Your task to perform on an android device: Add "razer naga" to the cart on amazon, then select checkout. Image 0: 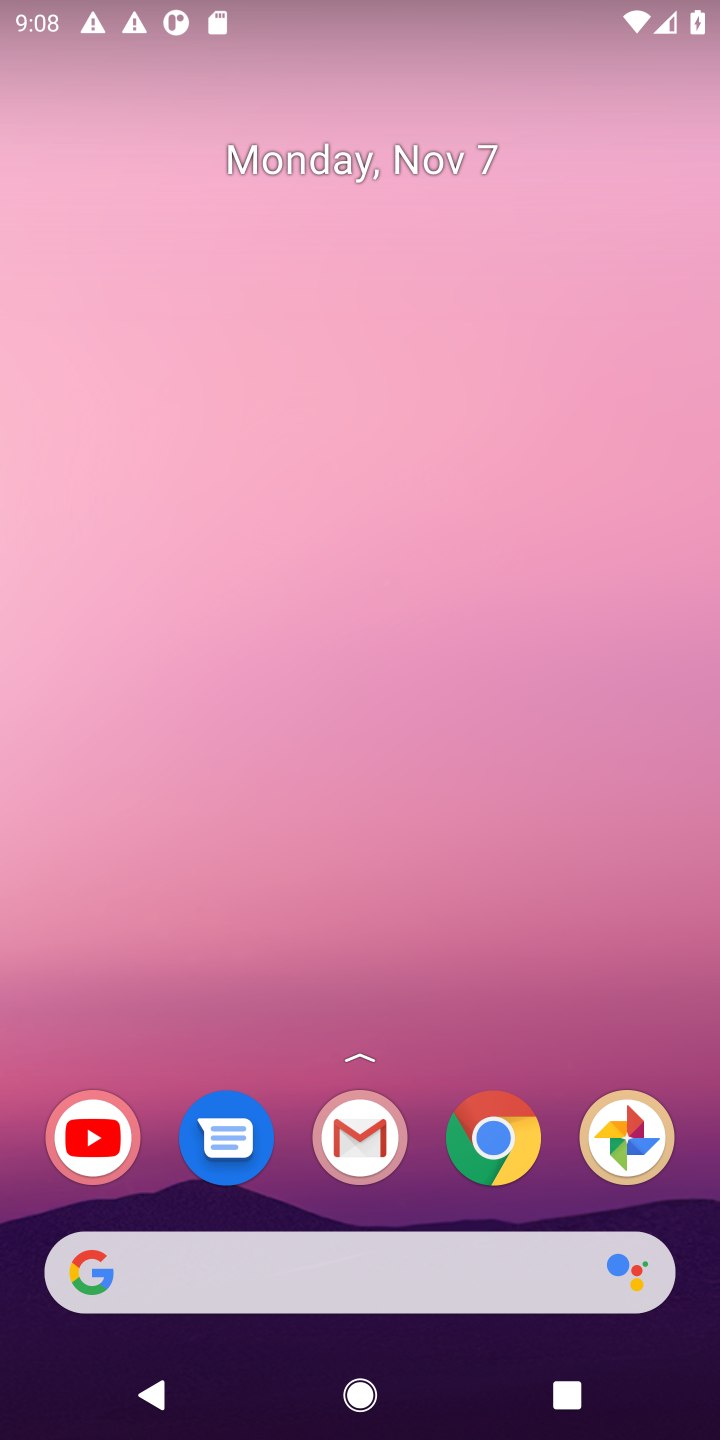
Step 0: click (475, 1139)
Your task to perform on an android device: Add "razer naga" to the cart on amazon, then select checkout. Image 1: 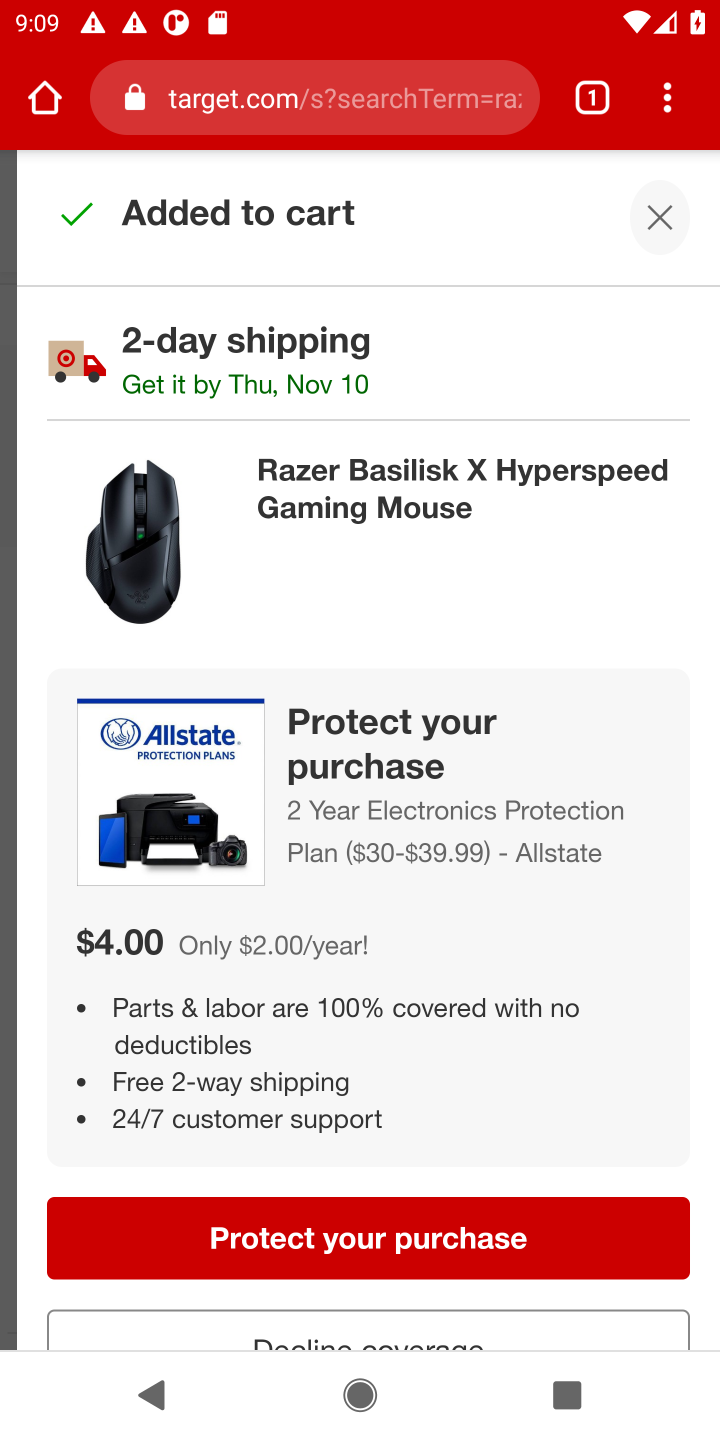
Step 1: click (603, 112)
Your task to perform on an android device: Add "razer naga" to the cart on amazon, then select checkout. Image 2: 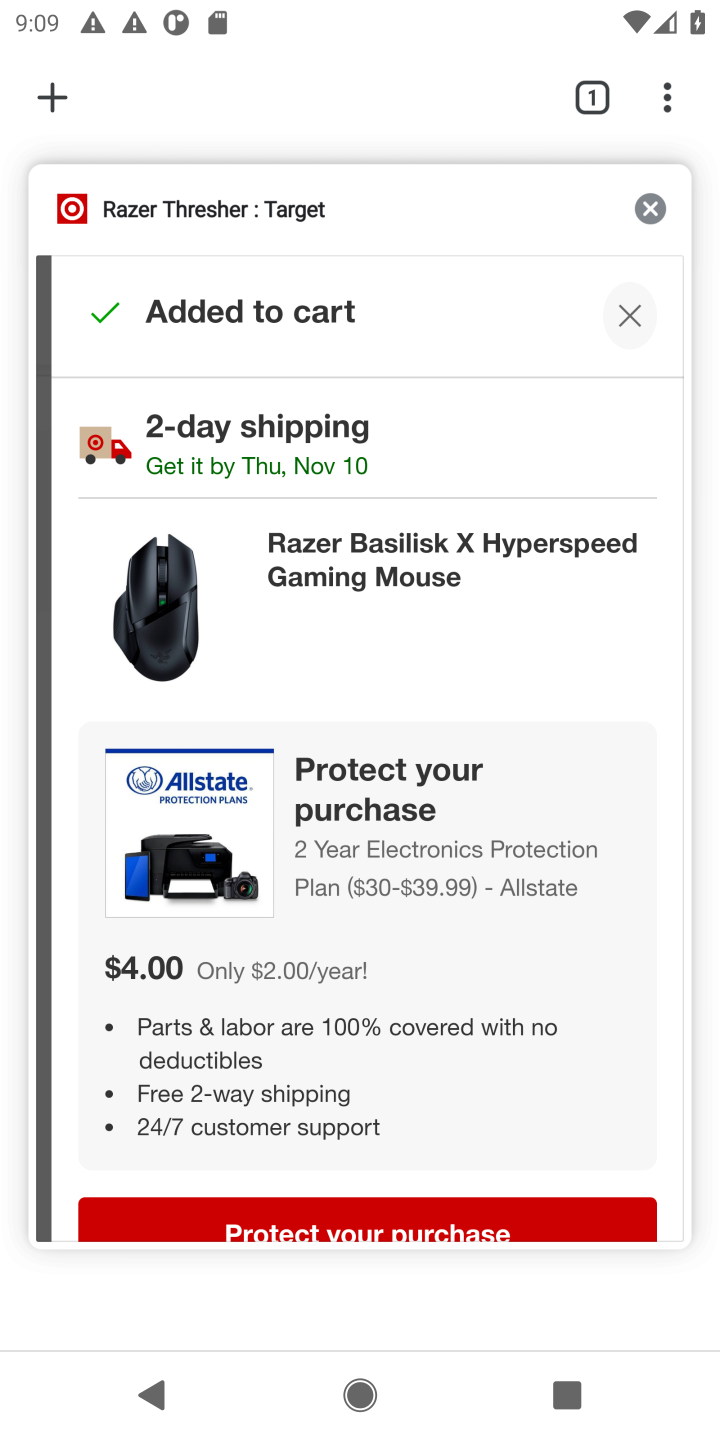
Step 2: click (45, 93)
Your task to perform on an android device: Add "razer naga" to the cart on amazon, then select checkout. Image 3: 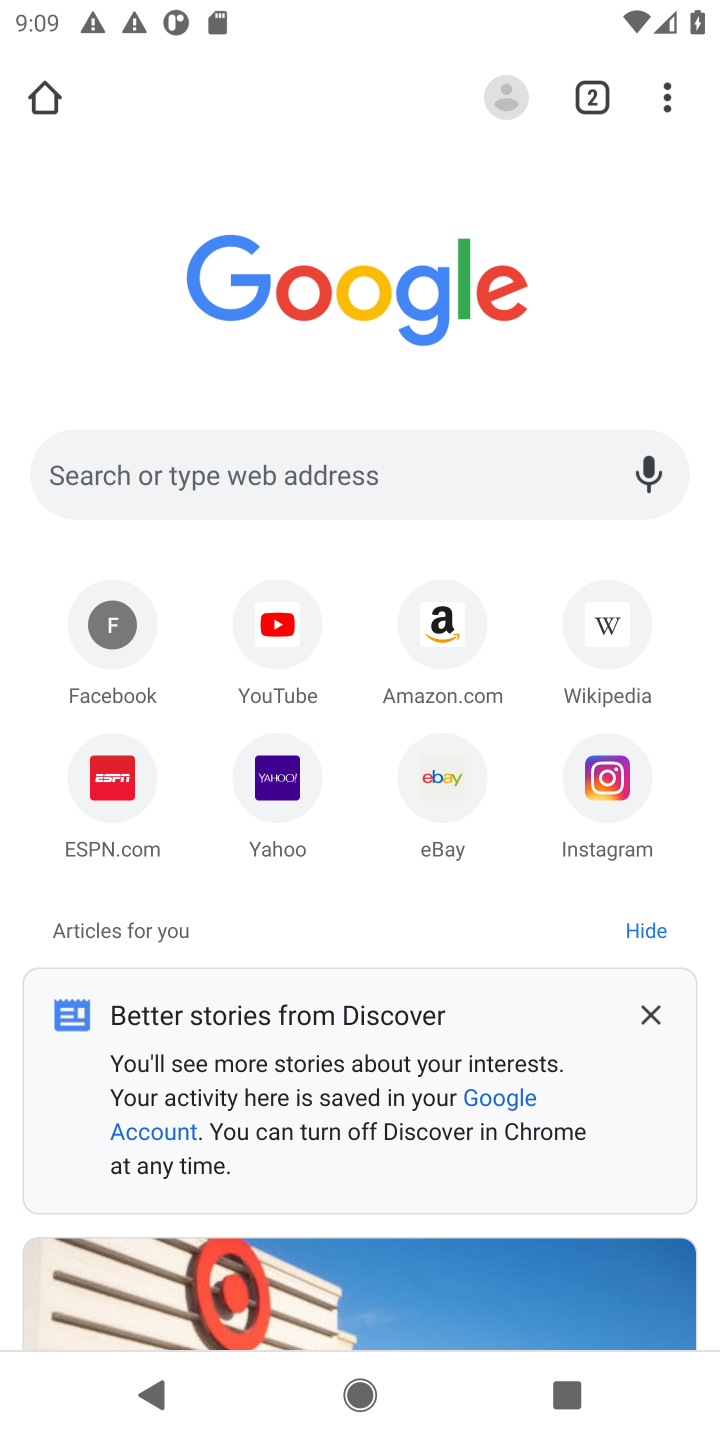
Step 3: click (450, 620)
Your task to perform on an android device: Add "razer naga" to the cart on amazon, then select checkout. Image 4: 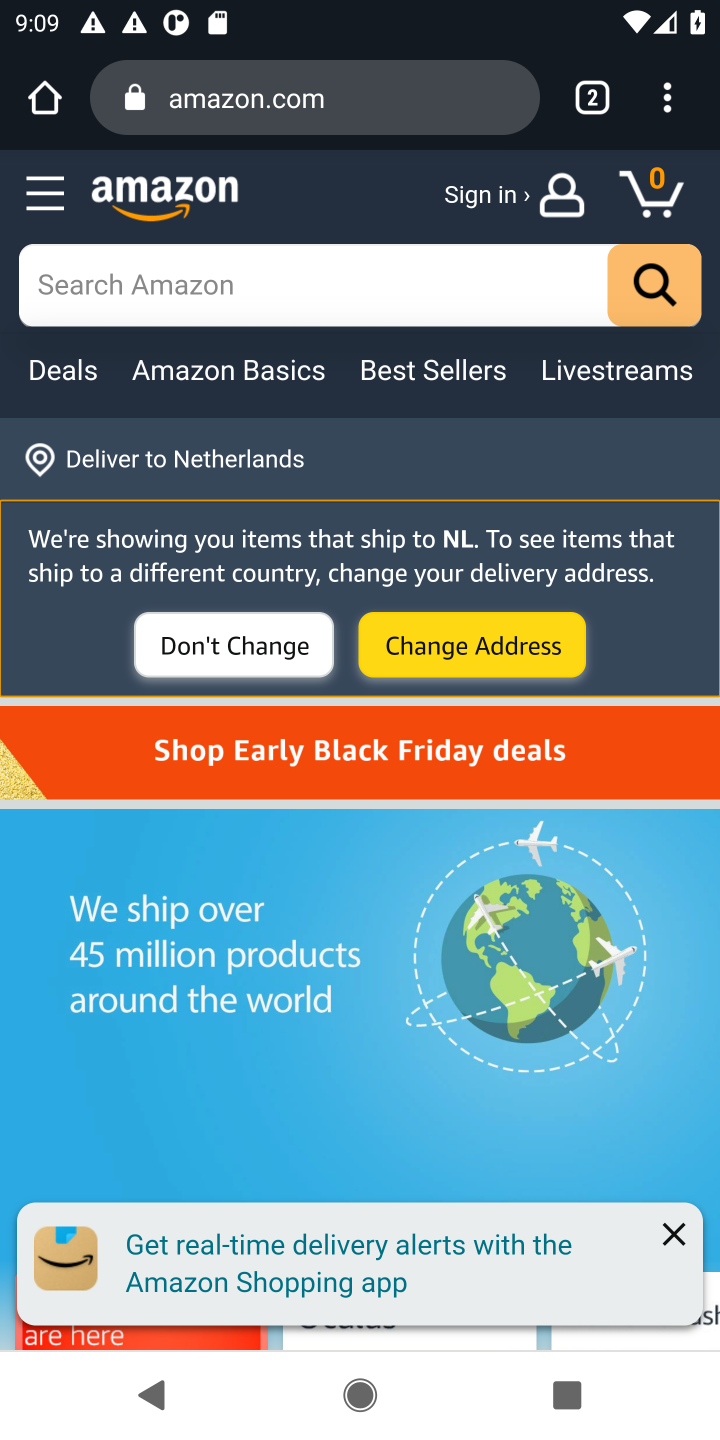
Step 4: click (212, 310)
Your task to perform on an android device: Add "razer naga" to the cart on amazon, then select checkout. Image 5: 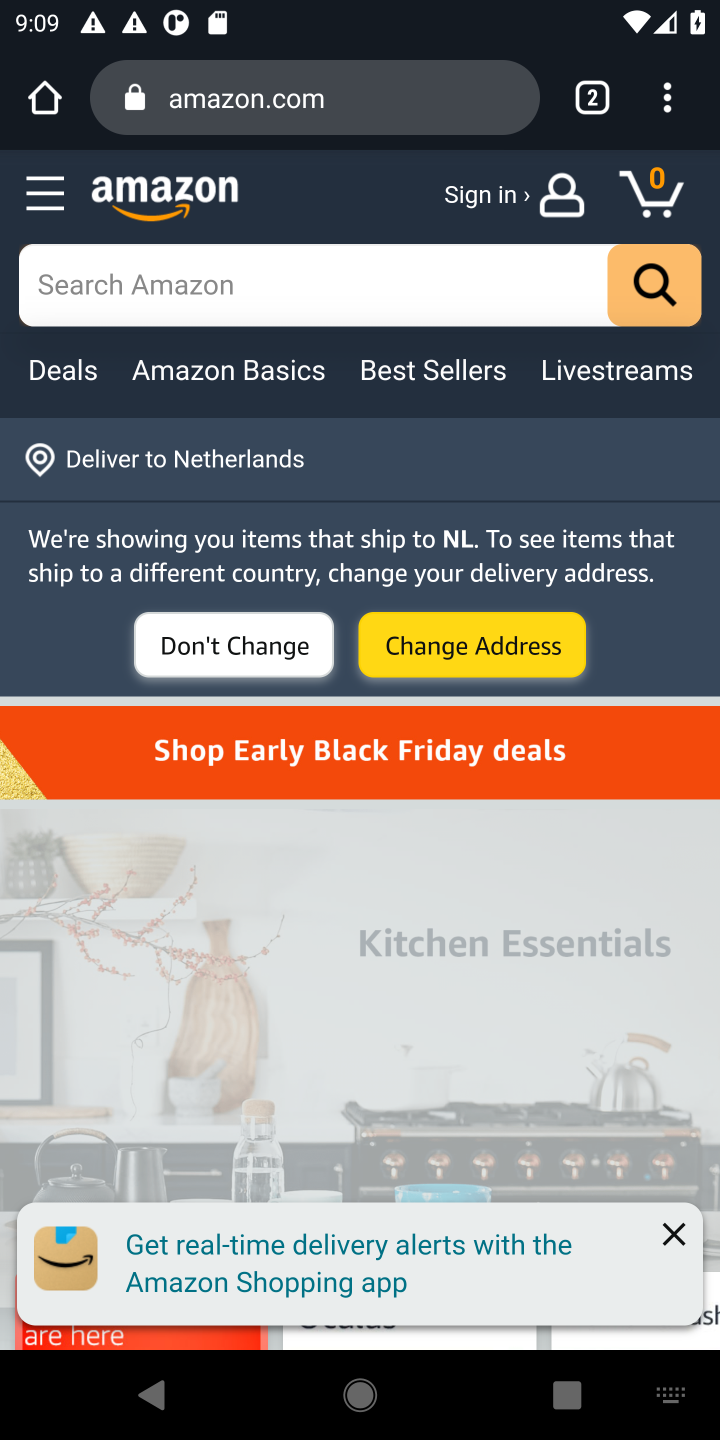
Step 5: type "azer naga"
Your task to perform on an android device: Add "razer naga" to the cart on amazon, then select checkout. Image 6: 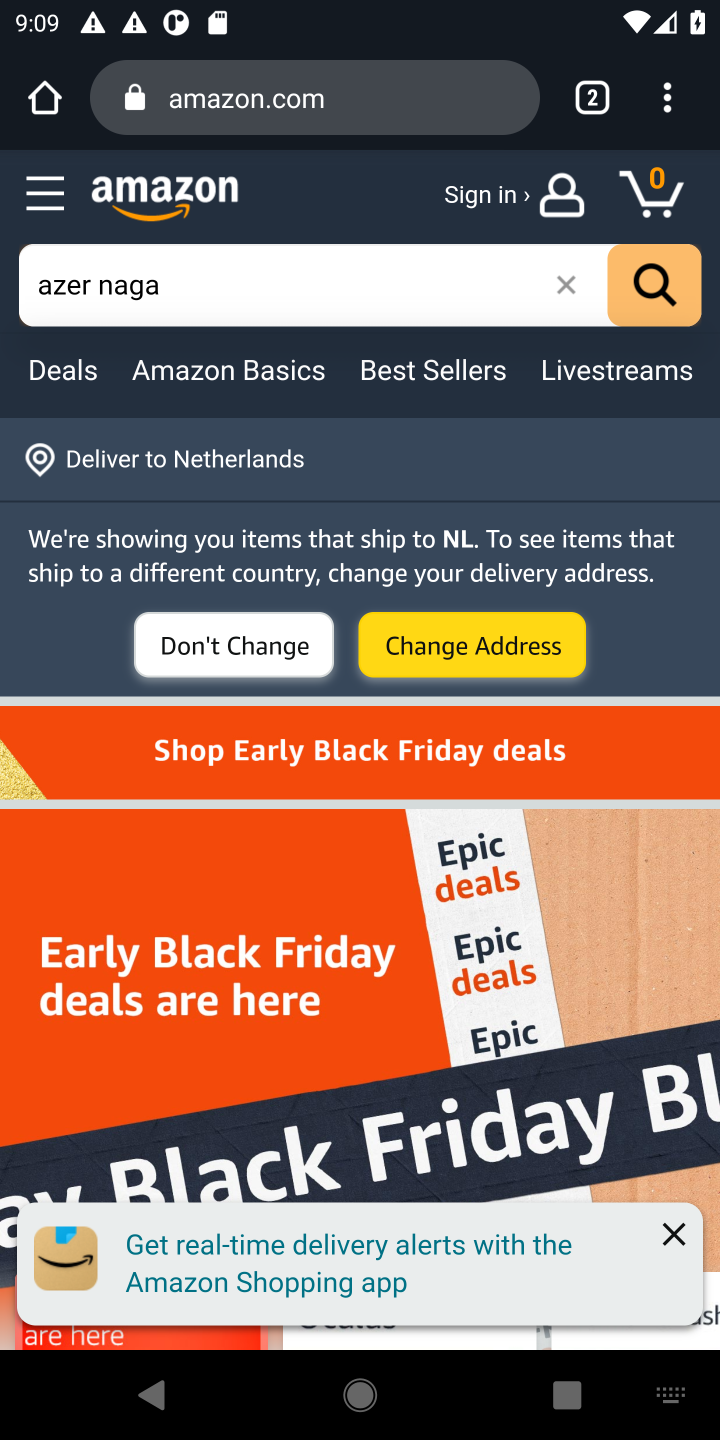
Step 6: click (653, 279)
Your task to perform on an android device: Add "razer naga" to the cart on amazon, then select checkout. Image 7: 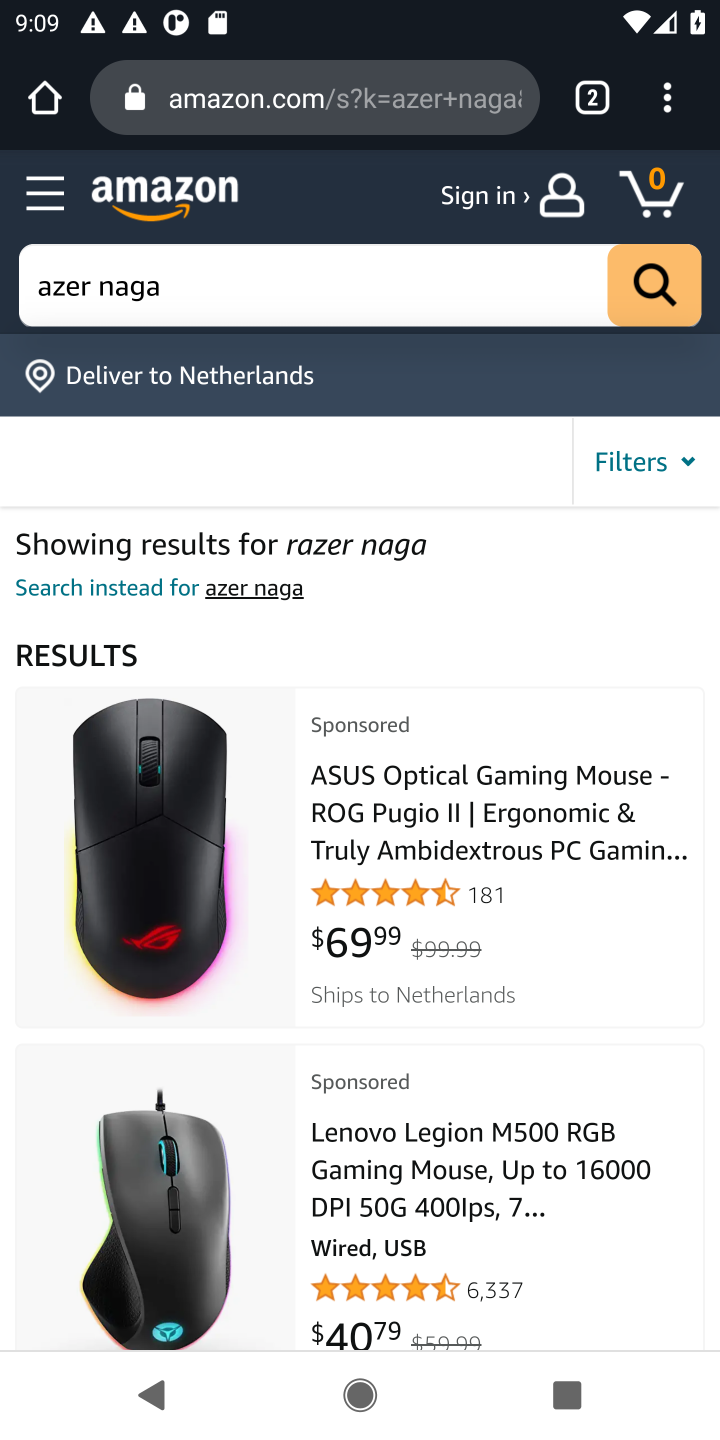
Step 7: drag from (570, 1238) to (643, 370)
Your task to perform on an android device: Add "razer naga" to the cart on amazon, then select checkout. Image 8: 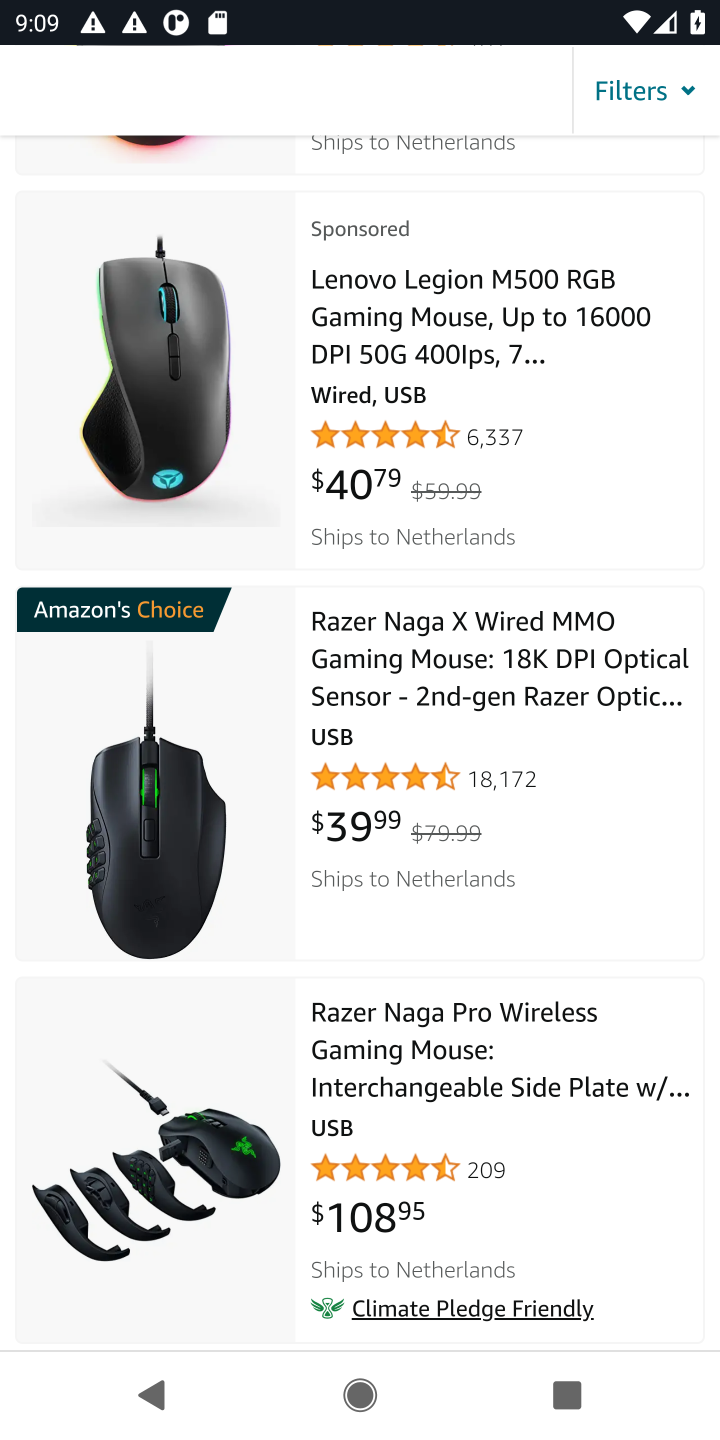
Step 8: click (487, 1080)
Your task to perform on an android device: Add "razer naga" to the cart on amazon, then select checkout. Image 9: 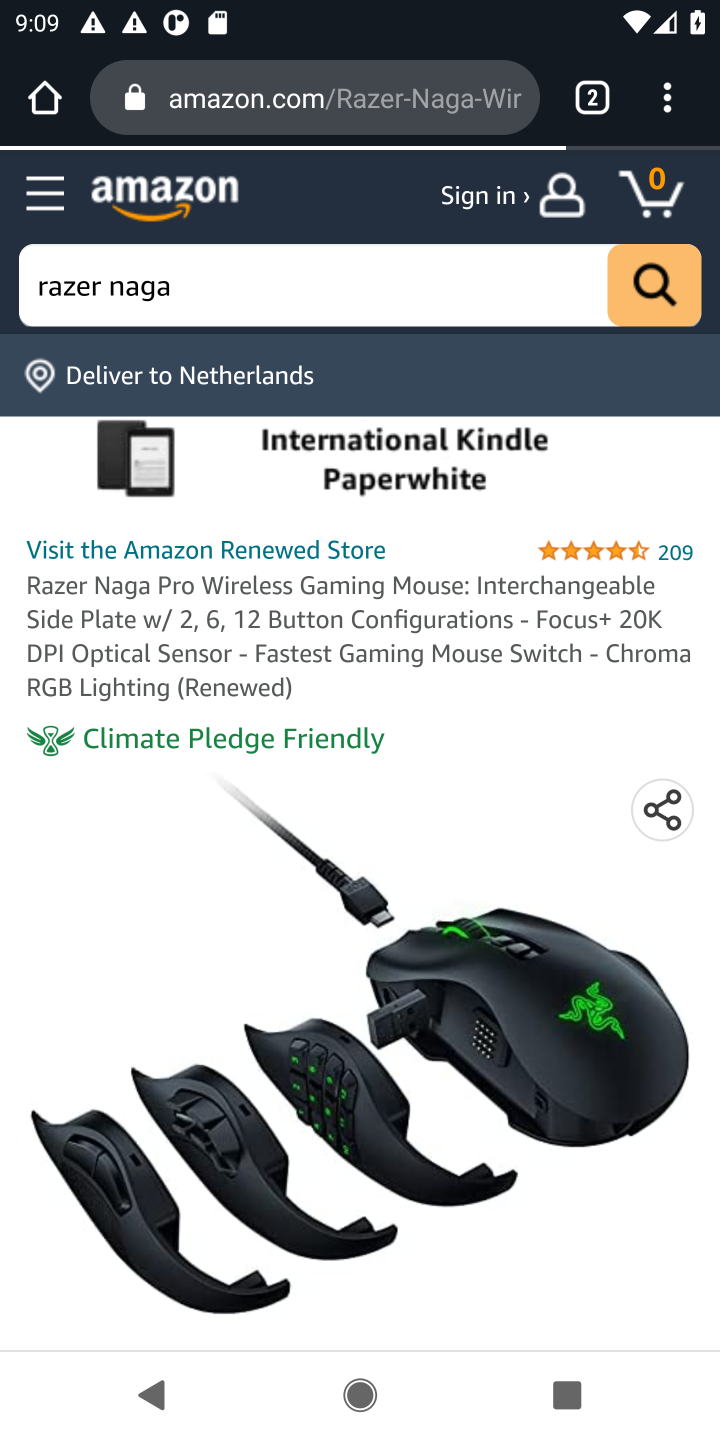
Step 9: drag from (313, 1232) to (575, 455)
Your task to perform on an android device: Add "razer naga" to the cart on amazon, then select checkout. Image 10: 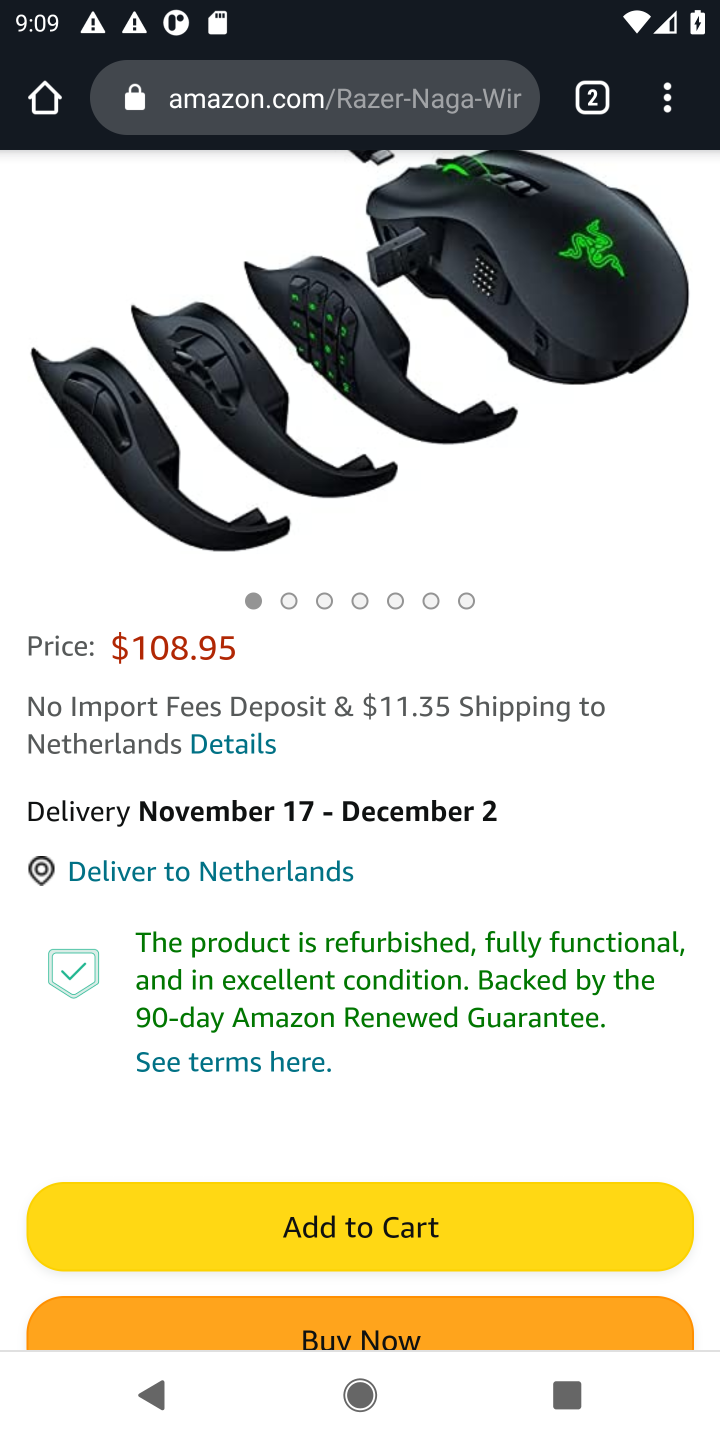
Step 10: click (421, 1217)
Your task to perform on an android device: Add "razer naga" to the cart on amazon, then select checkout. Image 11: 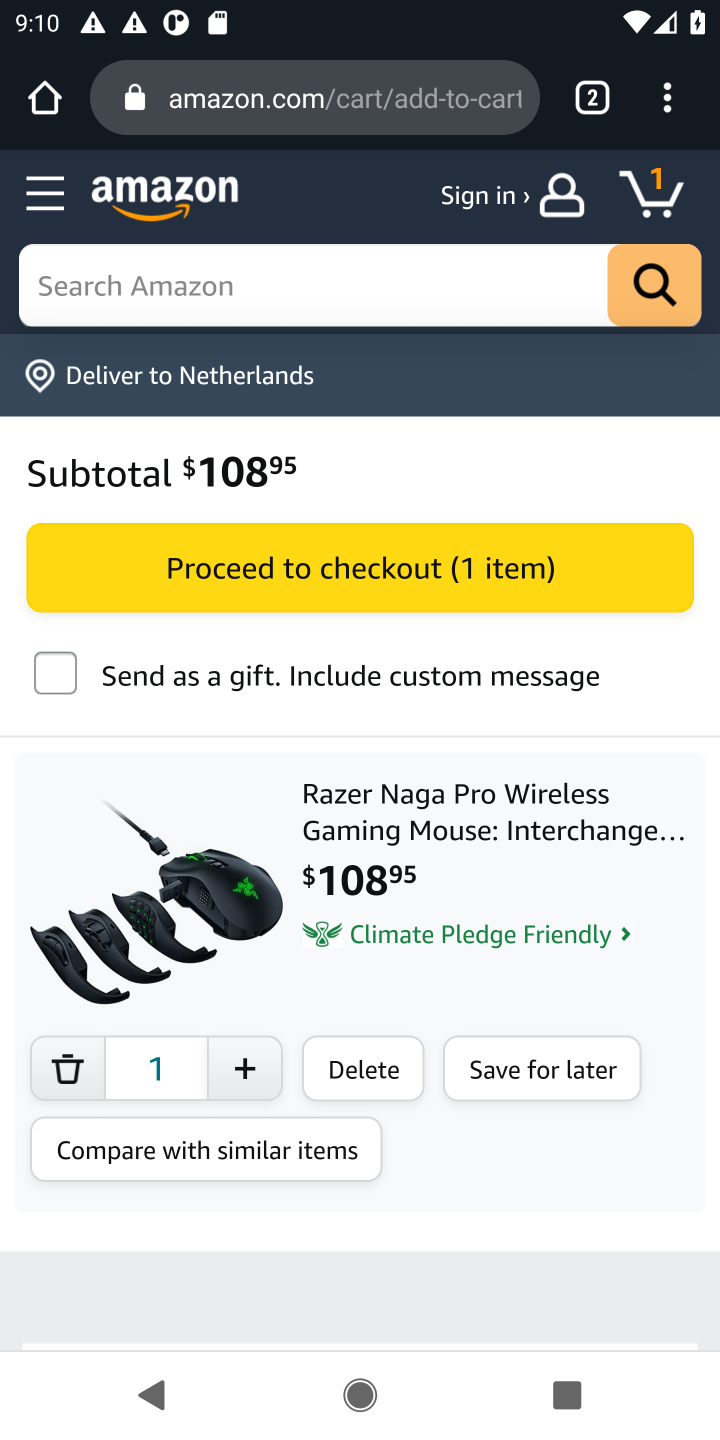
Step 11: click (489, 582)
Your task to perform on an android device: Add "razer naga" to the cart on amazon, then select checkout. Image 12: 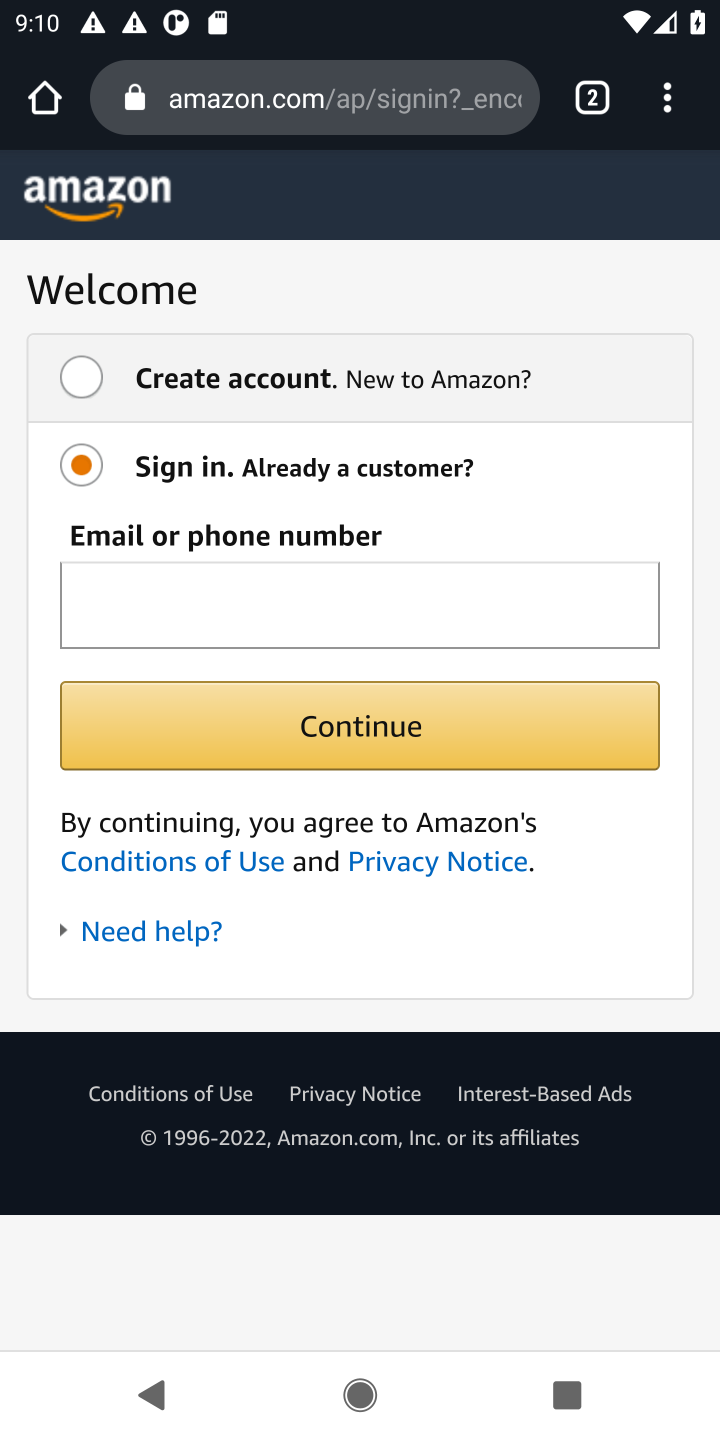
Step 12: task complete